Your task to perform on an android device: turn off wifi Image 0: 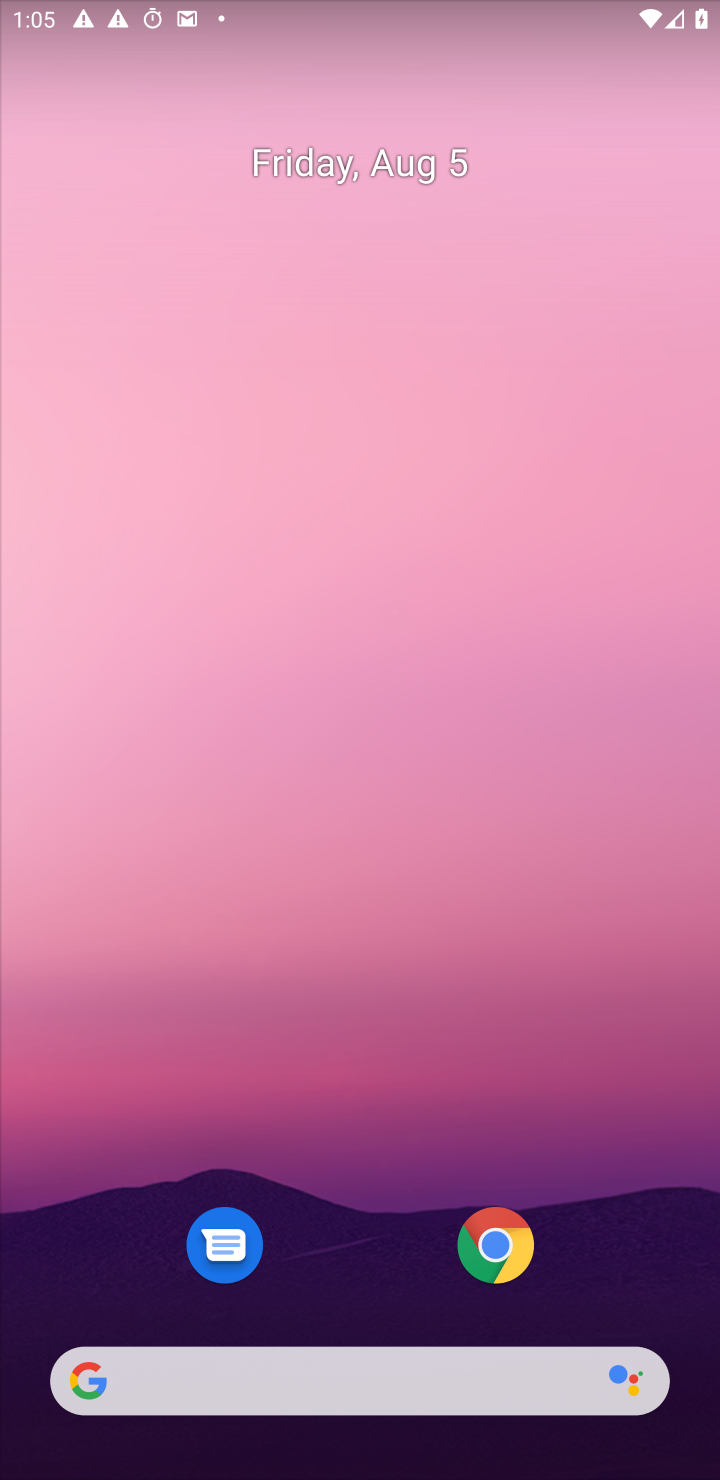
Step 0: press home button
Your task to perform on an android device: turn off wifi Image 1: 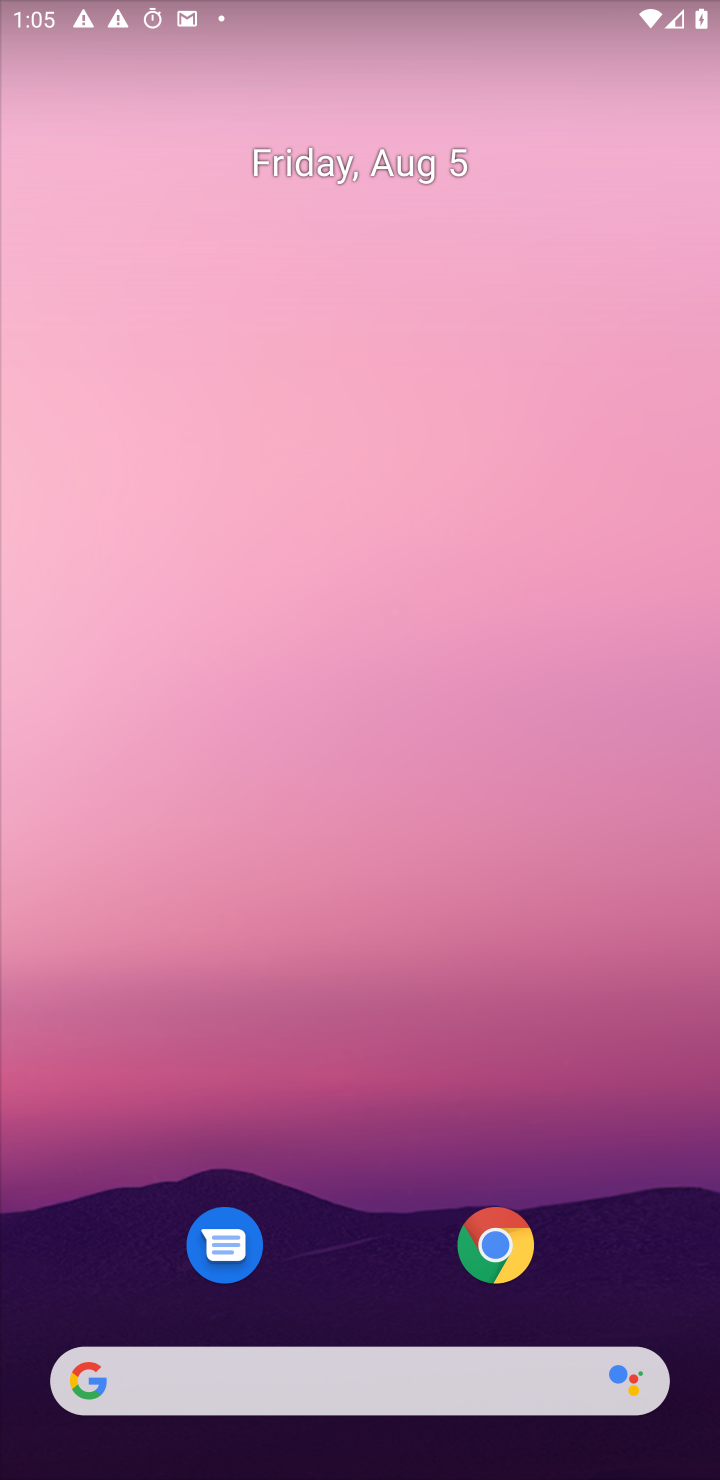
Step 1: drag from (401, 334) to (414, 1456)
Your task to perform on an android device: turn off wifi Image 2: 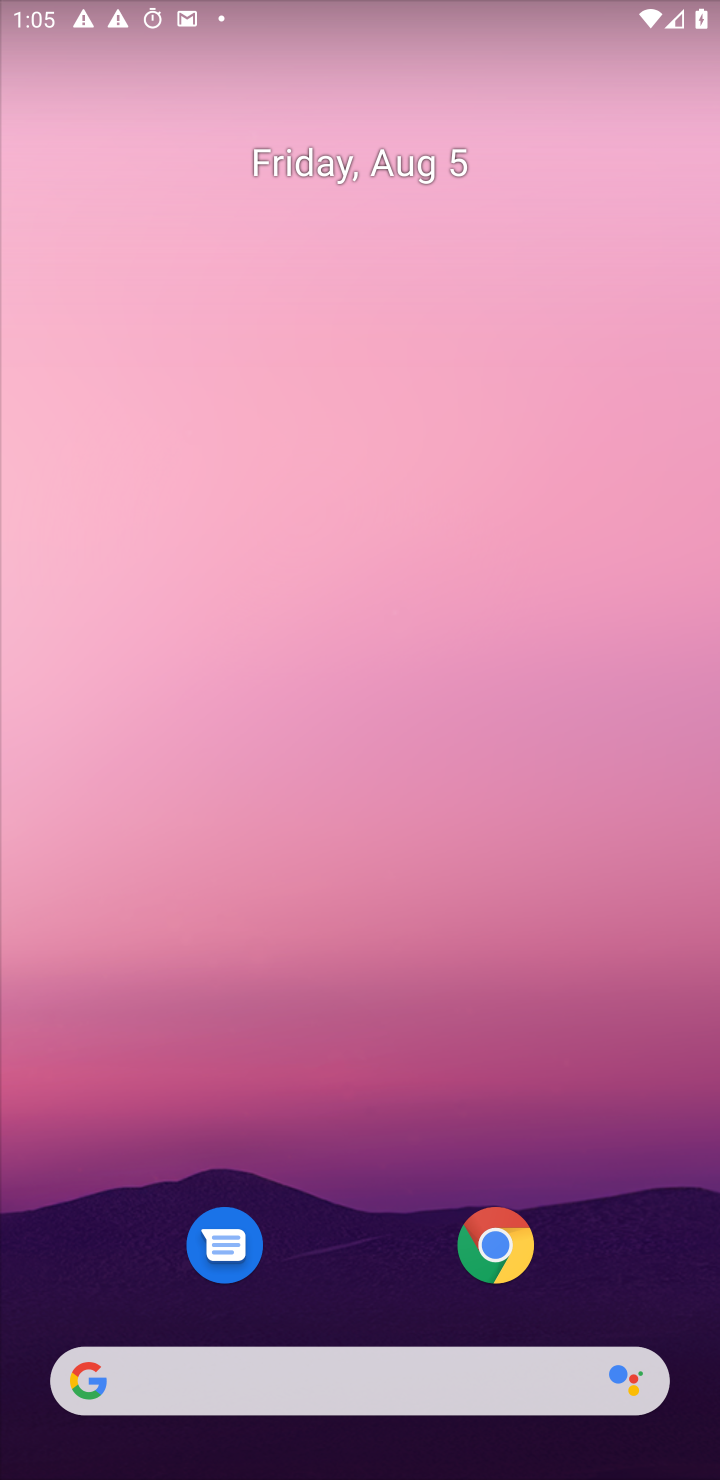
Step 2: drag from (354, 1) to (246, 794)
Your task to perform on an android device: turn off wifi Image 3: 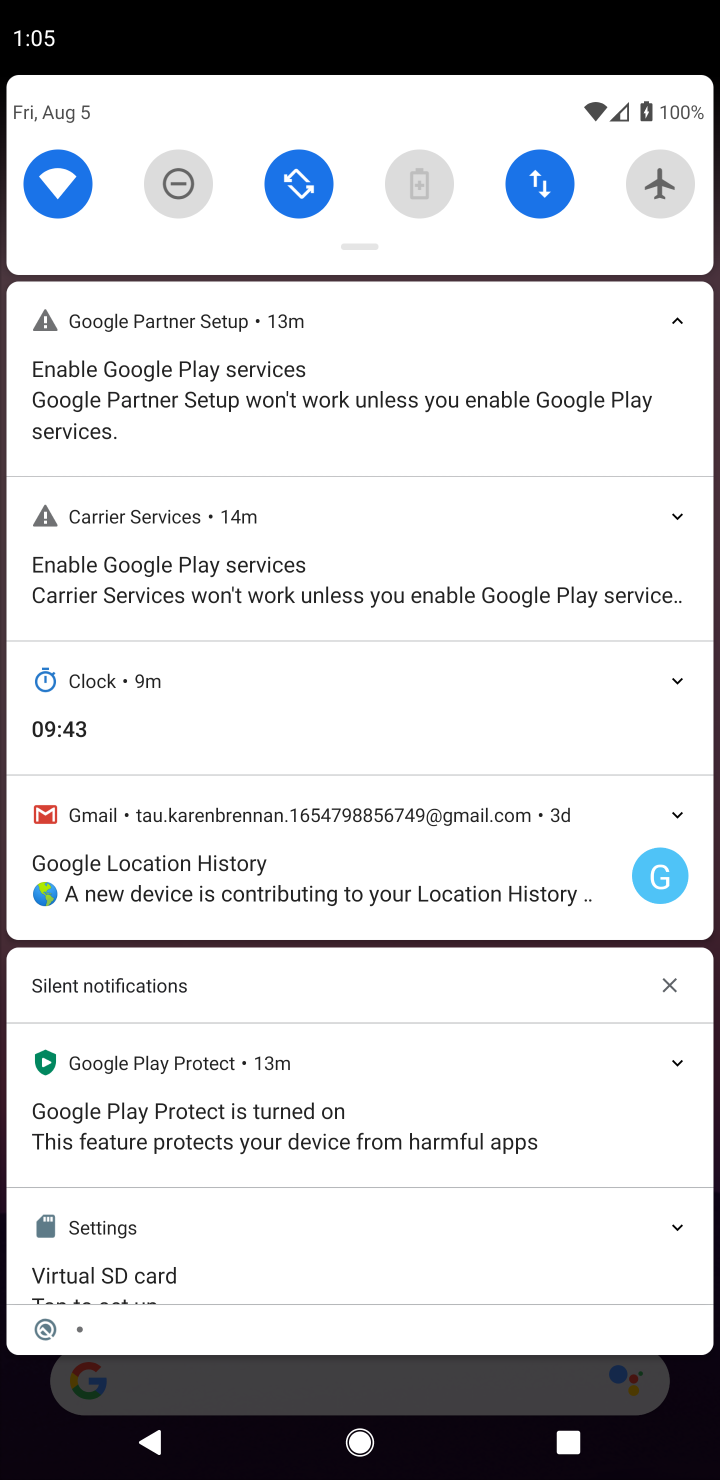
Step 3: click (67, 187)
Your task to perform on an android device: turn off wifi Image 4: 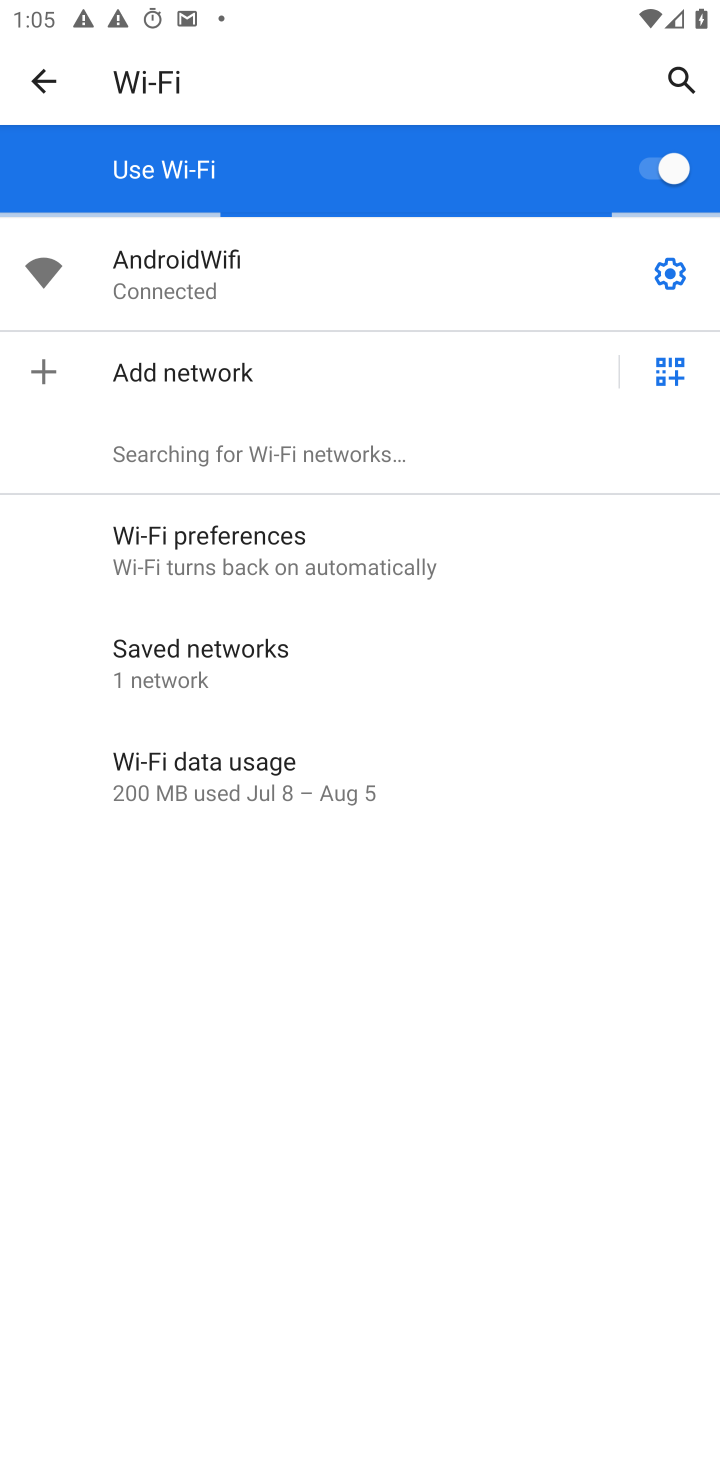
Step 4: click (669, 168)
Your task to perform on an android device: turn off wifi Image 5: 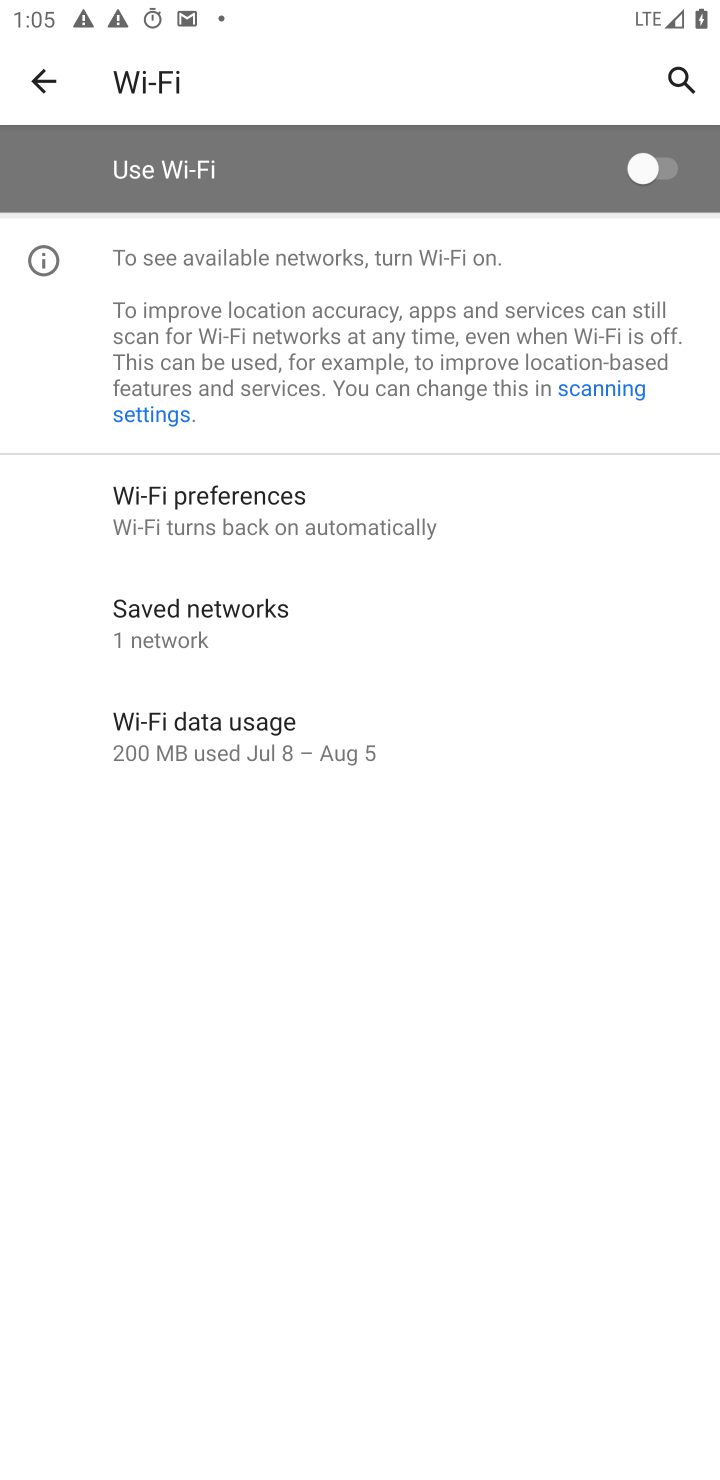
Step 5: task complete